Your task to perform on an android device: turn on bluetooth scan Image 0: 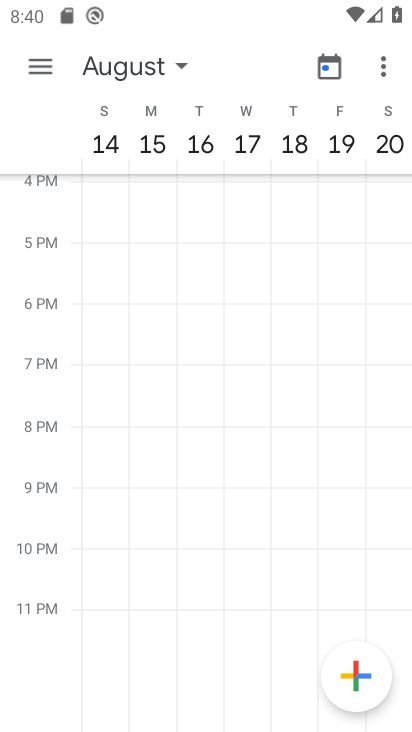
Step 0: press home button
Your task to perform on an android device: turn on bluetooth scan Image 1: 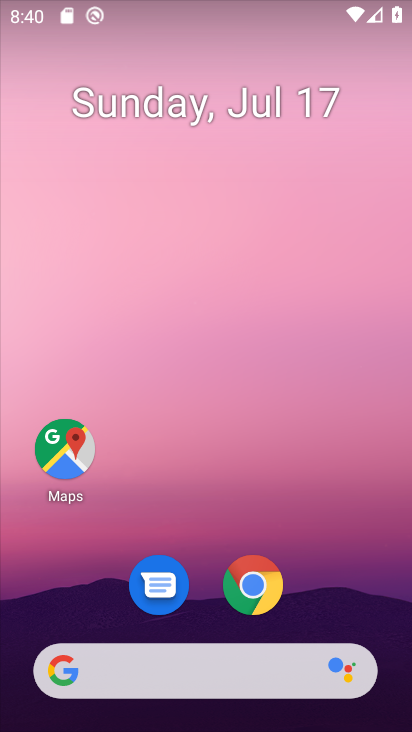
Step 1: drag from (311, 519) to (282, 29)
Your task to perform on an android device: turn on bluetooth scan Image 2: 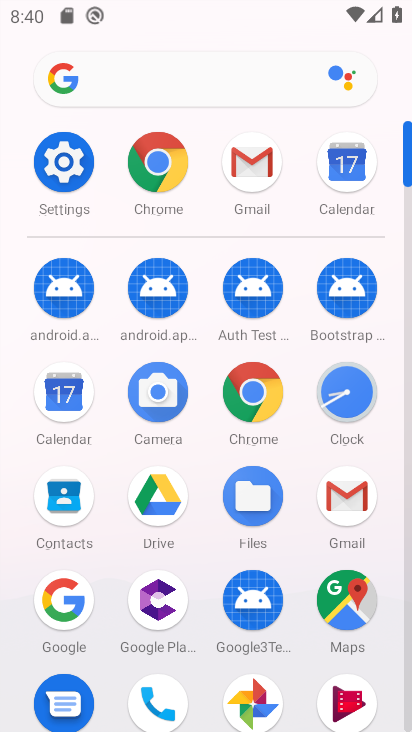
Step 2: click (67, 170)
Your task to perform on an android device: turn on bluetooth scan Image 3: 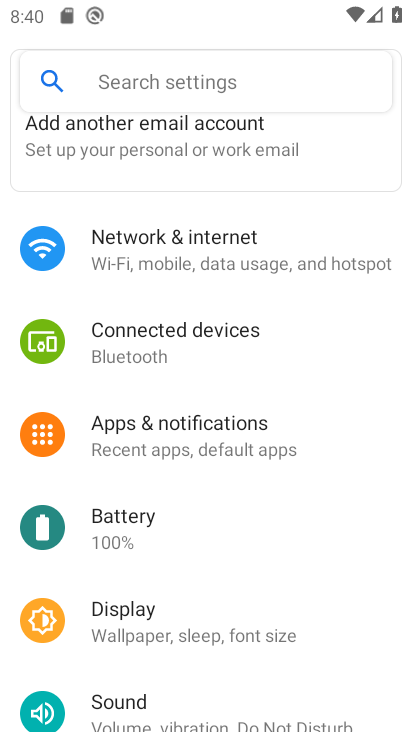
Step 3: drag from (220, 553) to (252, 75)
Your task to perform on an android device: turn on bluetooth scan Image 4: 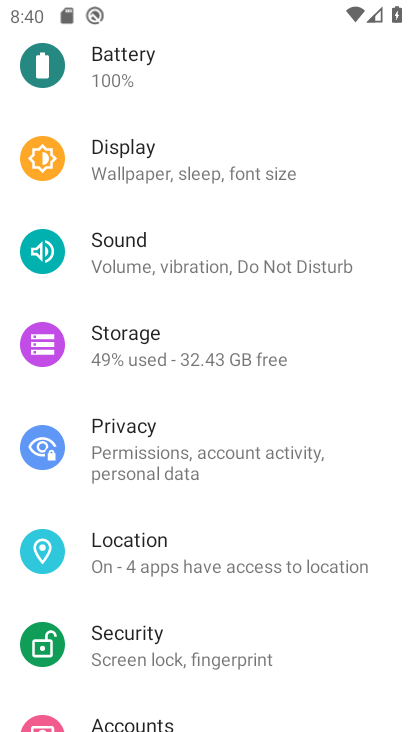
Step 4: click (158, 535)
Your task to perform on an android device: turn on bluetooth scan Image 5: 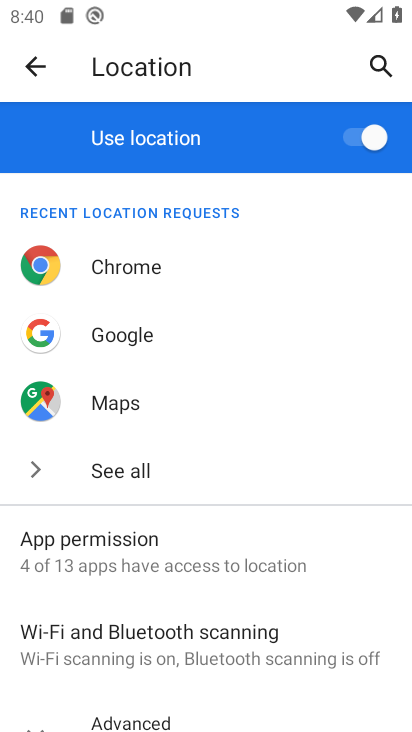
Step 5: click (280, 634)
Your task to perform on an android device: turn on bluetooth scan Image 6: 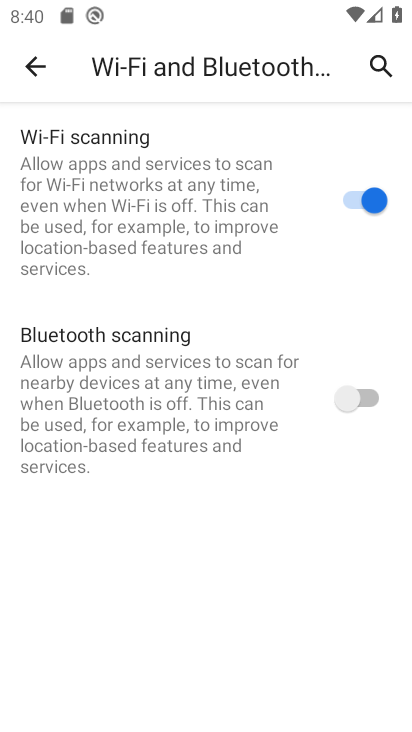
Step 6: click (369, 394)
Your task to perform on an android device: turn on bluetooth scan Image 7: 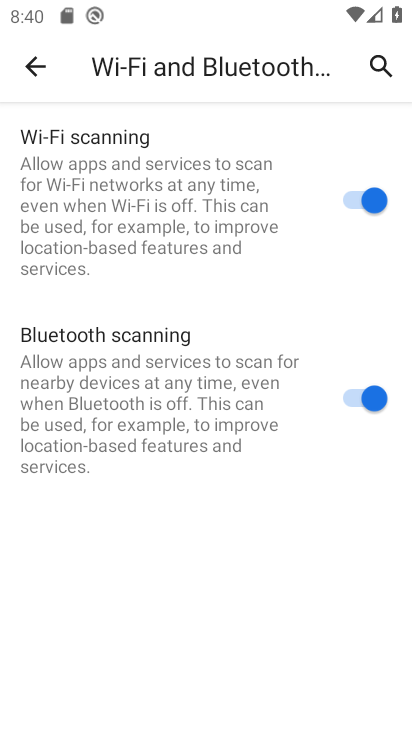
Step 7: task complete